Your task to perform on an android device: Play the last video I watched on Youtube Image 0: 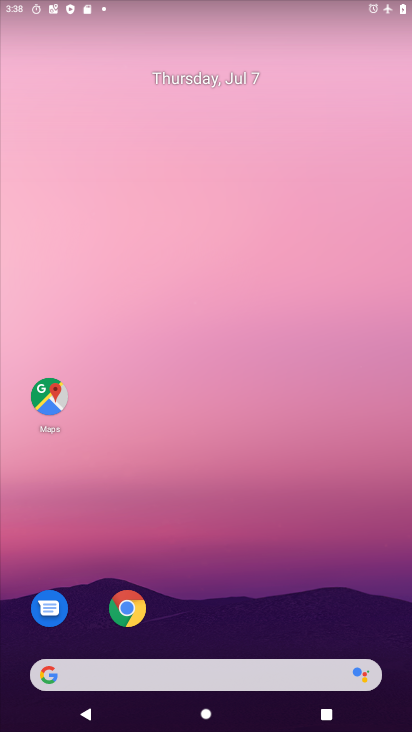
Step 0: drag from (221, 727) to (222, 99)
Your task to perform on an android device: Play the last video I watched on Youtube Image 1: 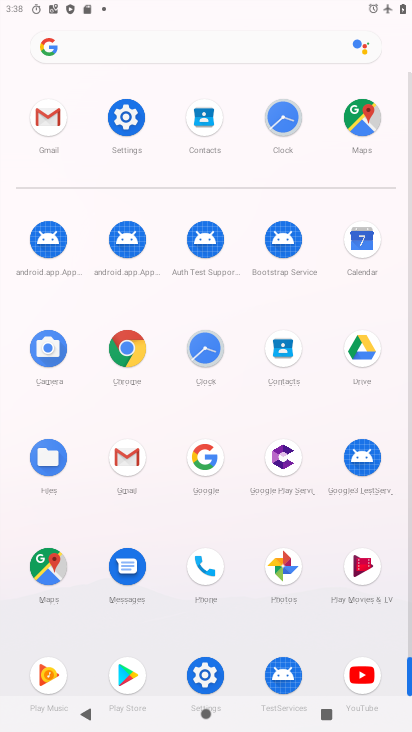
Step 1: click (361, 679)
Your task to perform on an android device: Play the last video I watched on Youtube Image 2: 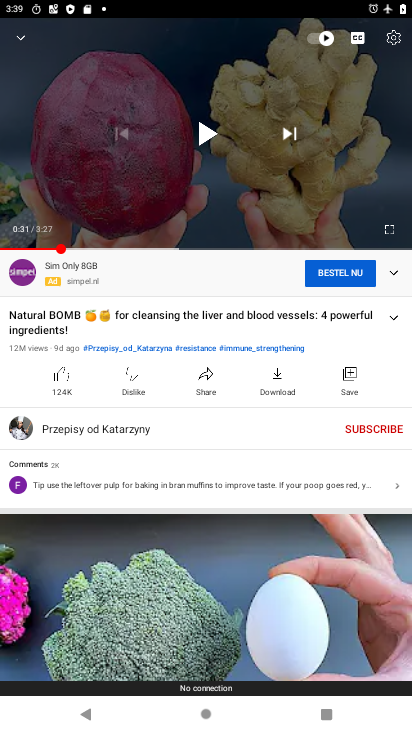
Step 2: click (205, 130)
Your task to perform on an android device: Play the last video I watched on Youtube Image 3: 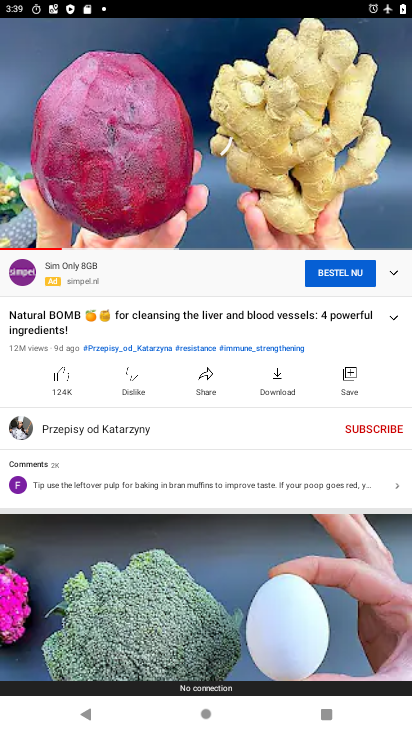
Step 3: task complete